Your task to perform on an android device: turn on bluetooth scan Image 0: 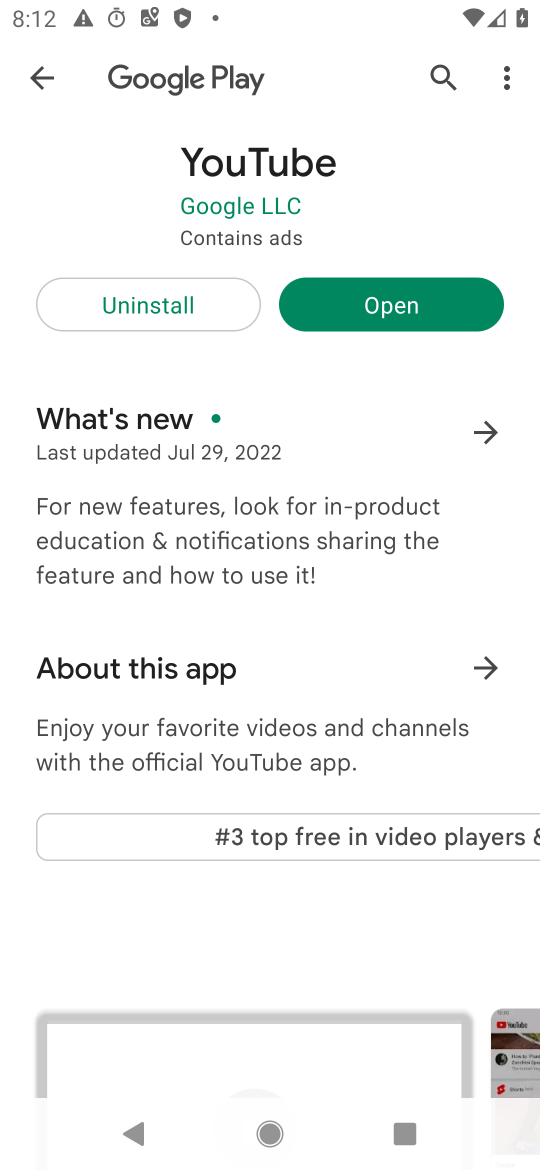
Step 0: press home button
Your task to perform on an android device: turn on bluetooth scan Image 1: 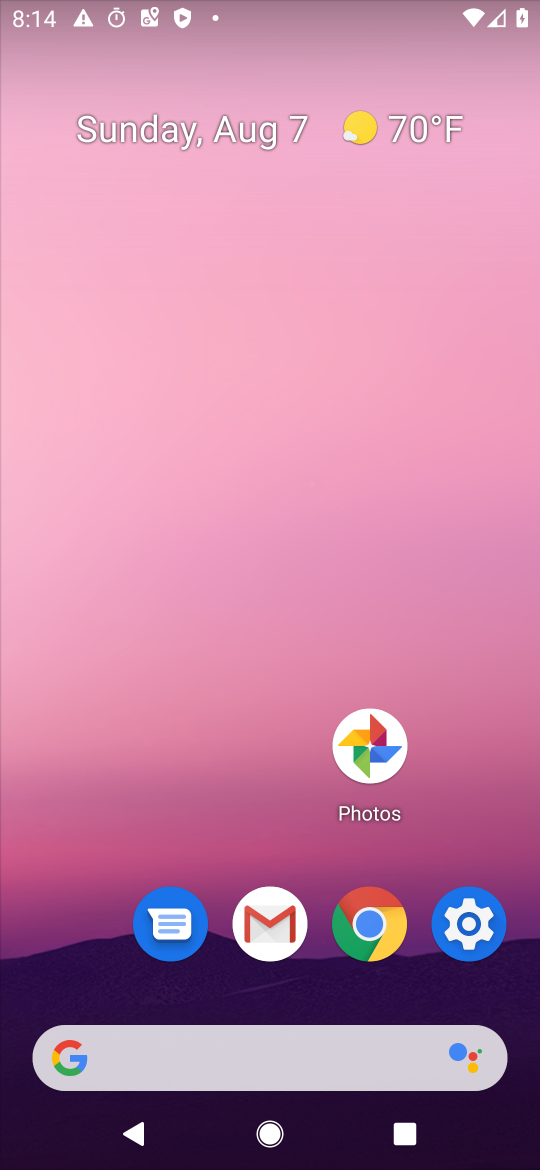
Step 1: drag from (361, 797) to (301, 260)
Your task to perform on an android device: turn on bluetooth scan Image 2: 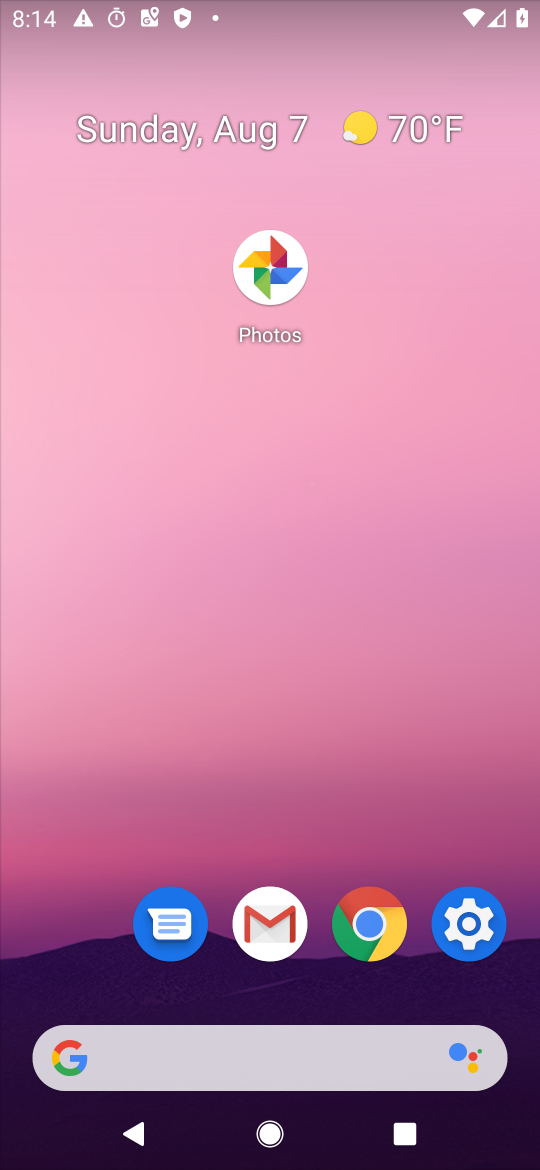
Step 2: drag from (359, 1089) to (211, 316)
Your task to perform on an android device: turn on bluetooth scan Image 3: 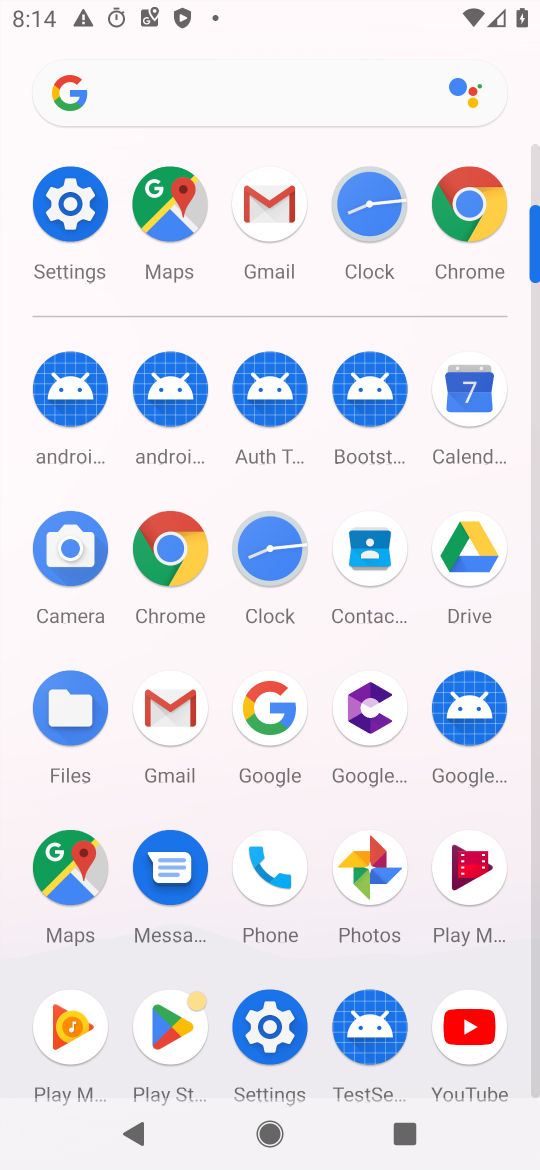
Step 3: click (86, 208)
Your task to perform on an android device: turn on bluetooth scan Image 4: 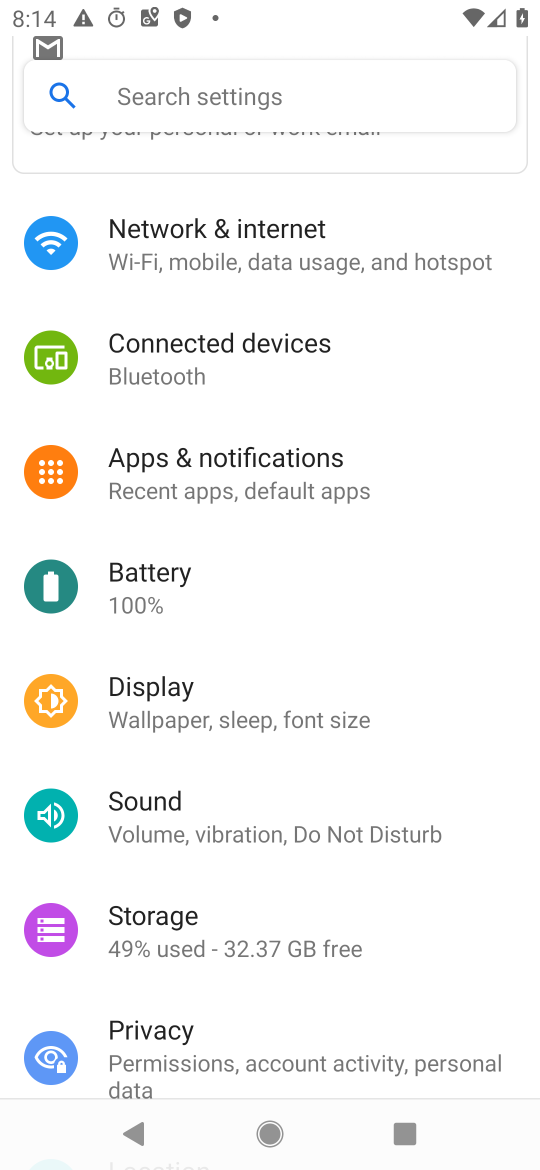
Step 4: drag from (231, 957) to (251, 856)
Your task to perform on an android device: turn on bluetooth scan Image 5: 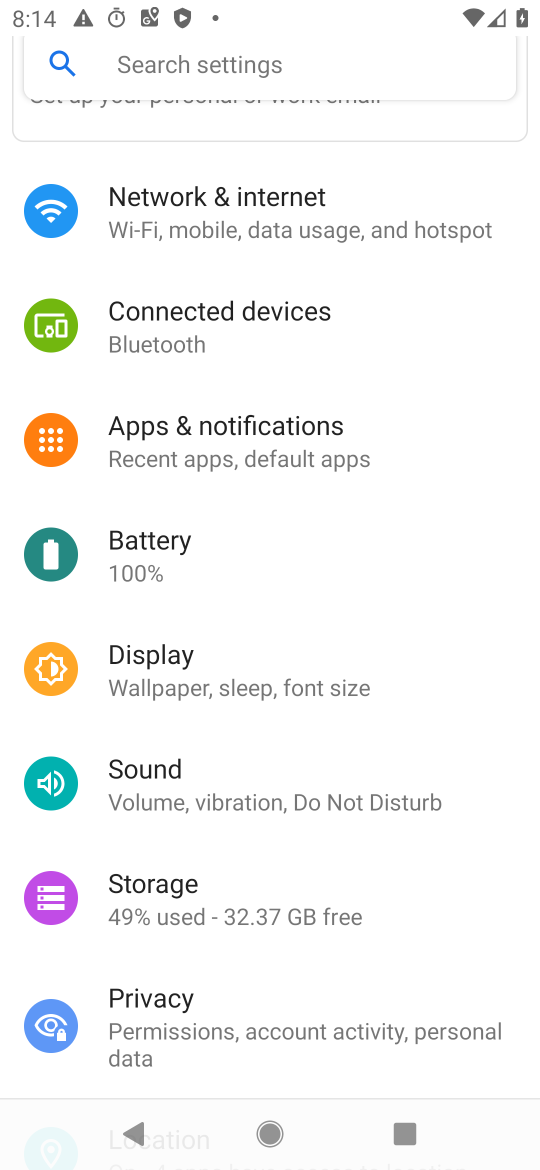
Step 5: drag from (230, 1026) to (249, 872)
Your task to perform on an android device: turn on bluetooth scan Image 6: 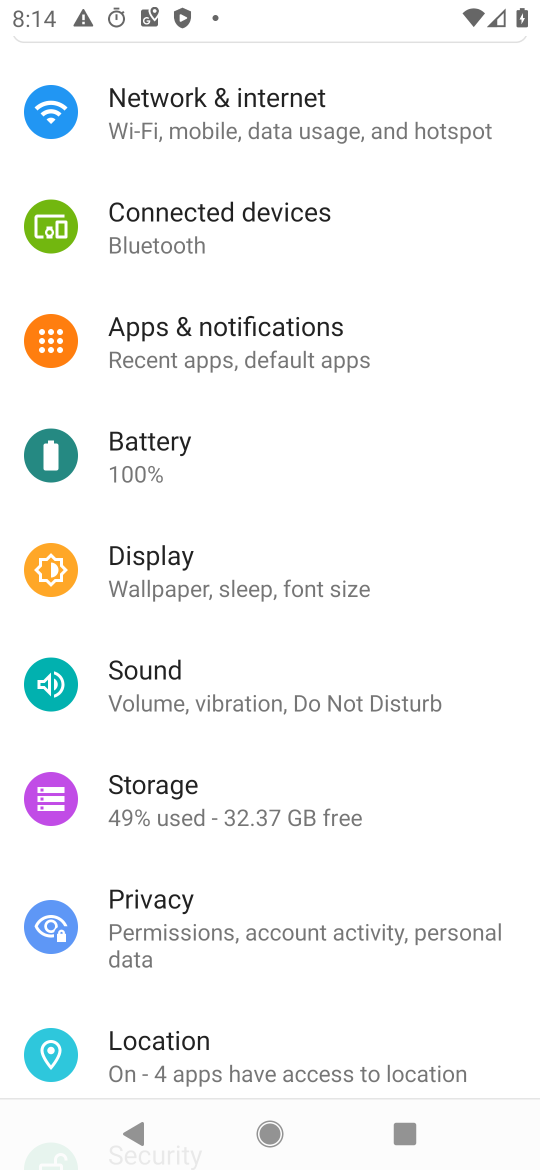
Step 6: click (240, 1053)
Your task to perform on an android device: turn on bluetooth scan Image 7: 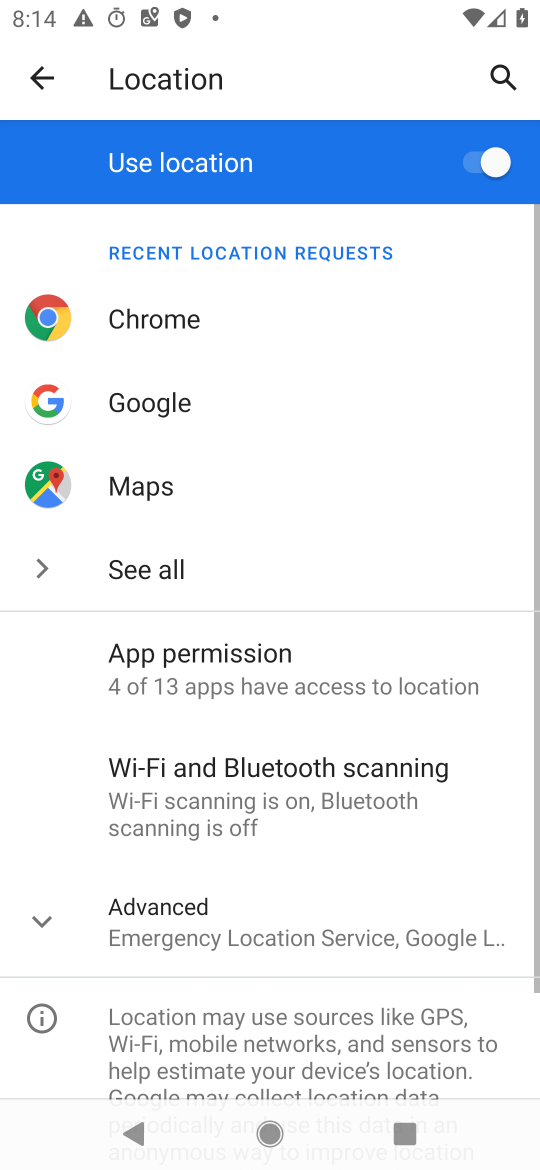
Step 7: click (335, 796)
Your task to perform on an android device: turn on bluetooth scan Image 8: 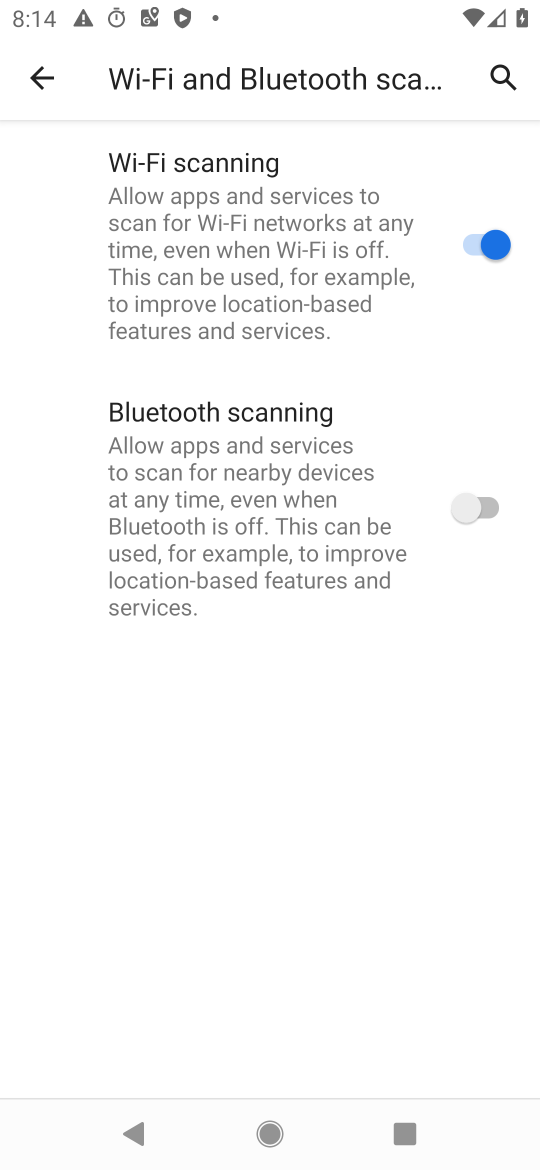
Step 8: click (463, 468)
Your task to perform on an android device: turn on bluetooth scan Image 9: 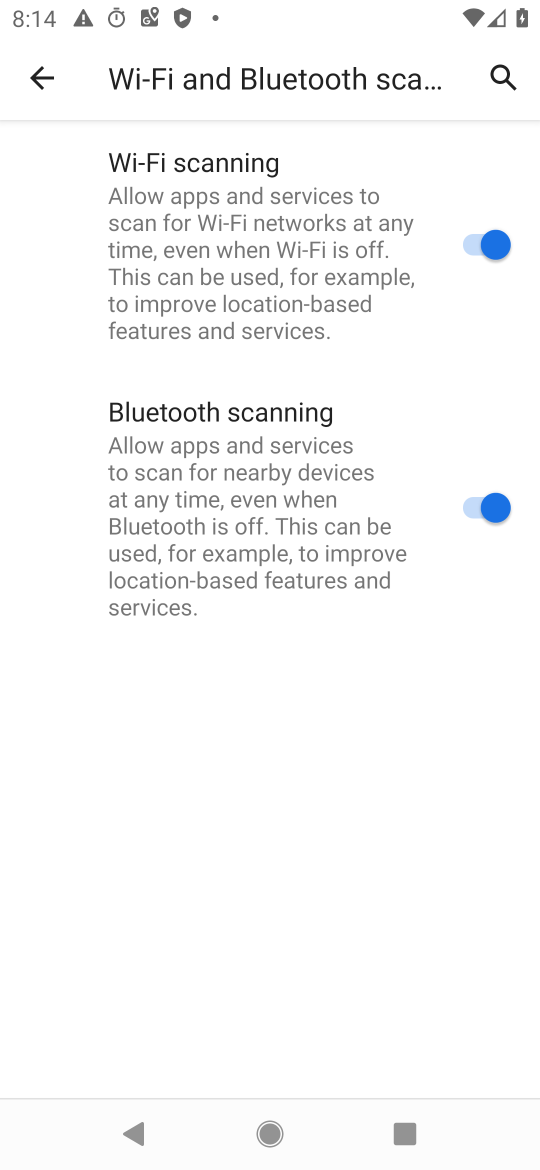
Step 9: task complete